Your task to perform on an android device: change notification settings in the gmail app Image 0: 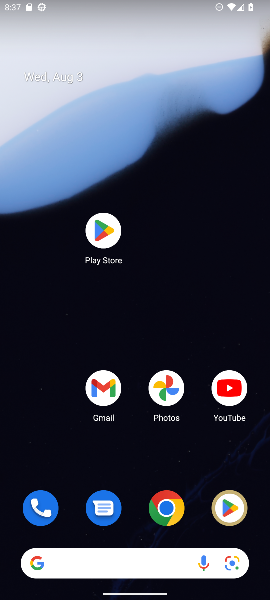
Step 0: drag from (134, 535) to (53, 19)
Your task to perform on an android device: change notification settings in the gmail app Image 1: 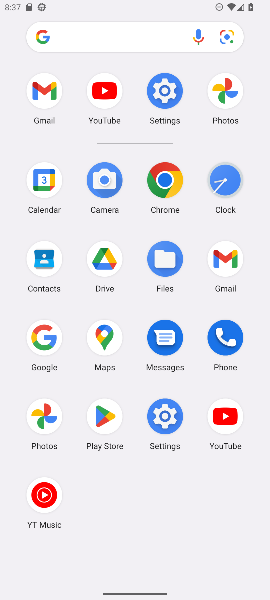
Step 1: click (179, 432)
Your task to perform on an android device: change notification settings in the gmail app Image 2: 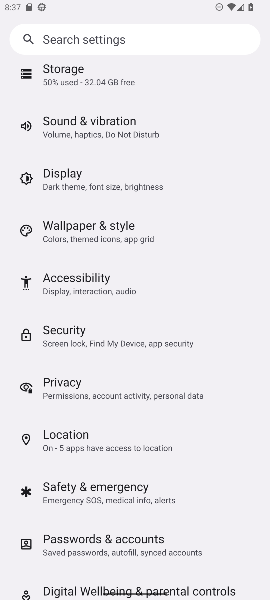
Step 2: press back button
Your task to perform on an android device: change notification settings in the gmail app Image 3: 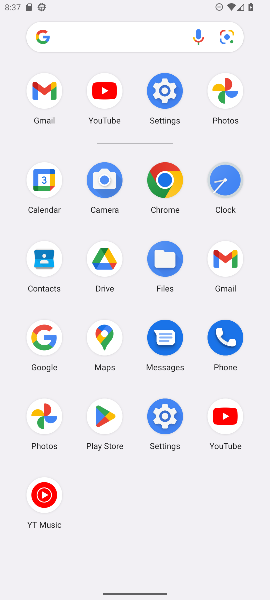
Step 3: click (216, 272)
Your task to perform on an android device: change notification settings in the gmail app Image 4: 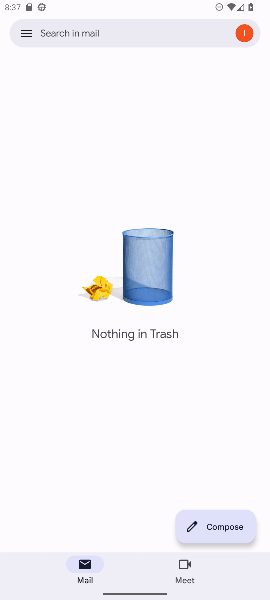
Step 4: click (27, 32)
Your task to perform on an android device: change notification settings in the gmail app Image 5: 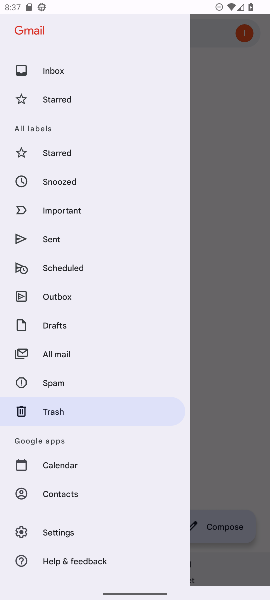
Step 5: click (65, 539)
Your task to perform on an android device: change notification settings in the gmail app Image 6: 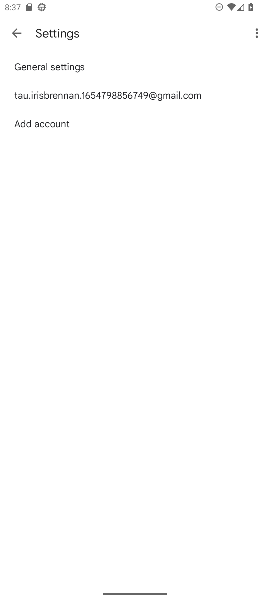
Step 6: click (50, 65)
Your task to perform on an android device: change notification settings in the gmail app Image 7: 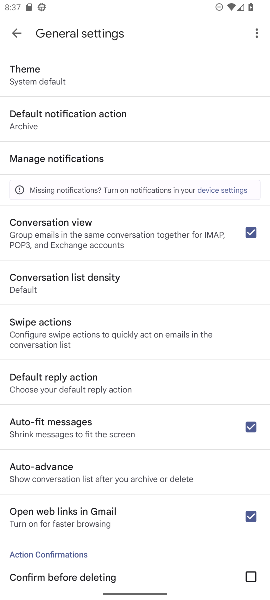
Step 7: click (64, 170)
Your task to perform on an android device: change notification settings in the gmail app Image 8: 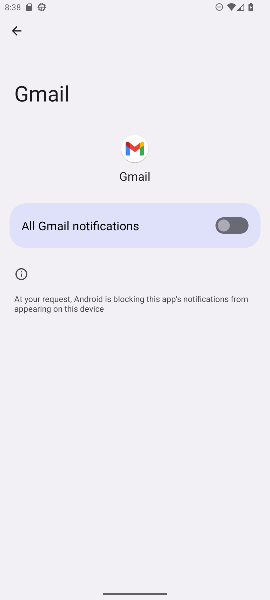
Step 8: click (233, 226)
Your task to perform on an android device: change notification settings in the gmail app Image 9: 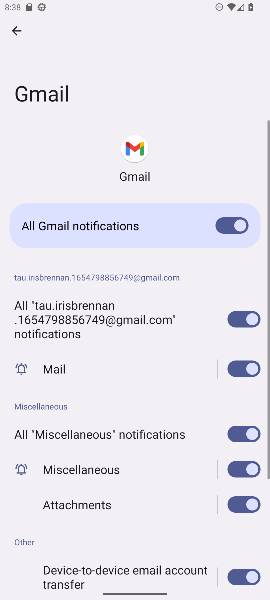
Step 9: task complete